Your task to perform on an android device: check google app version Image 0: 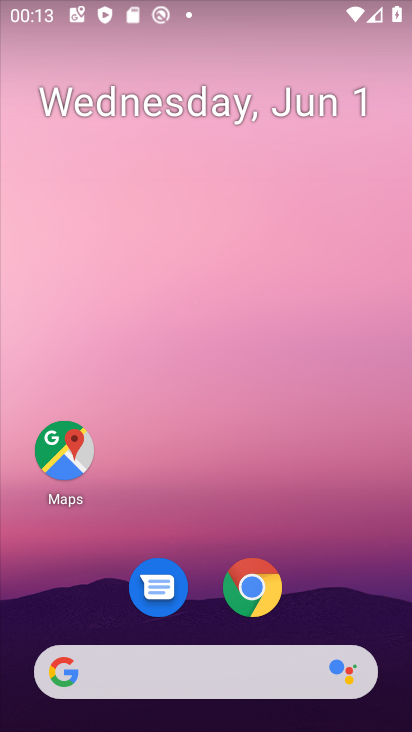
Step 0: drag from (330, 614) to (407, 0)
Your task to perform on an android device: check google app version Image 1: 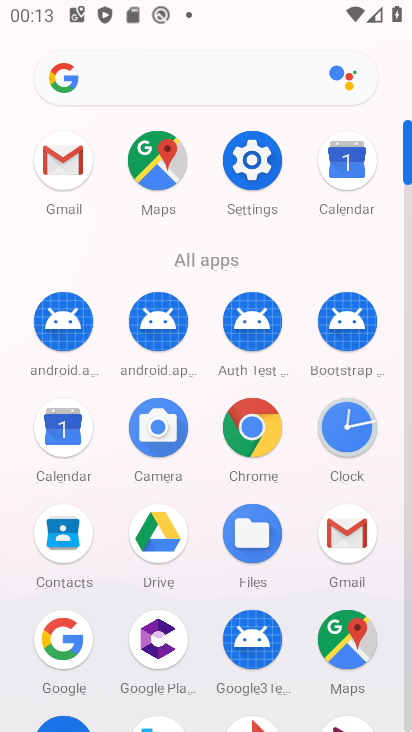
Step 1: click (68, 639)
Your task to perform on an android device: check google app version Image 2: 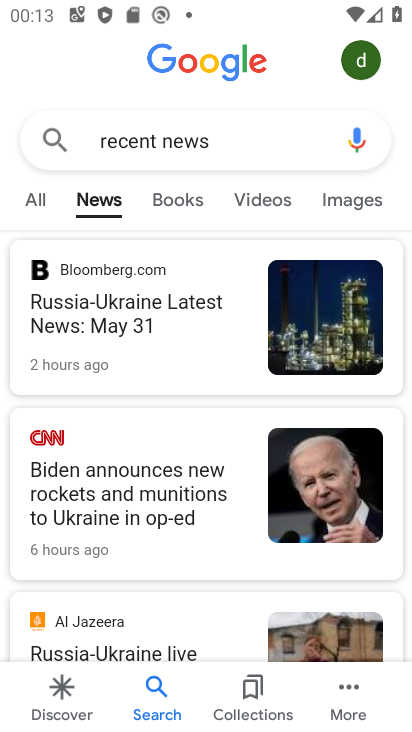
Step 2: click (354, 683)
Your task to perform on an android device: check google app version Image 3: 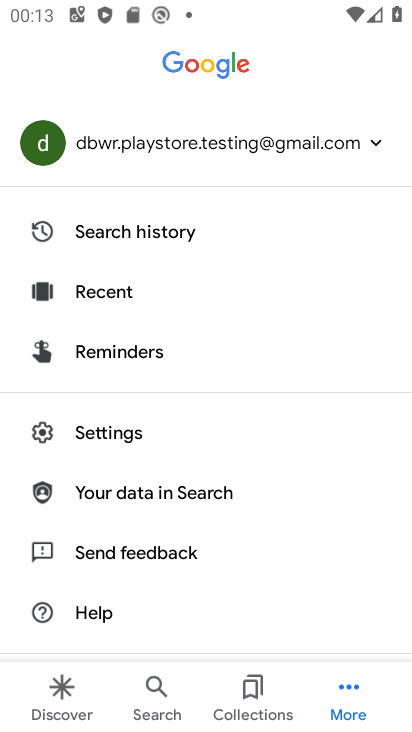
Step 3: click (124, 440)
Your task to perform on an android device: check google app version Image 4: 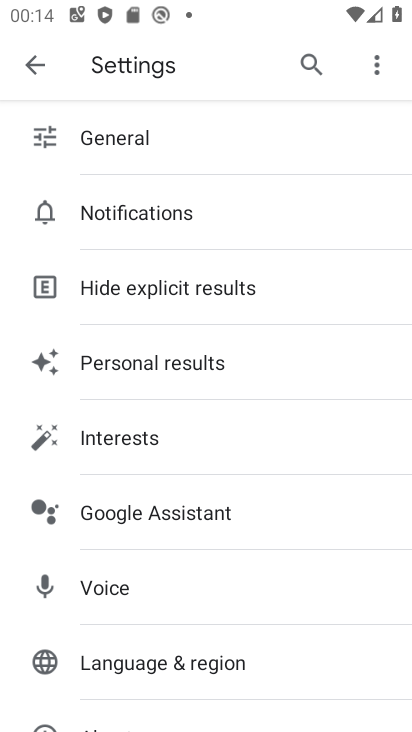
Step 4: drag from (129, 647) to (140, 78)
Your task to perform on an android device: check google app version Image 5: 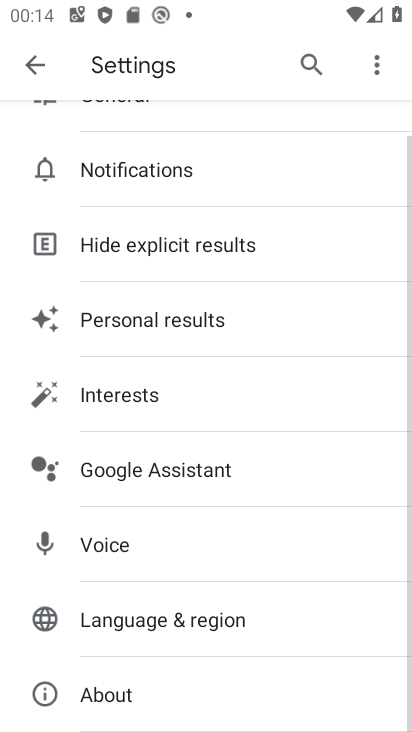
Step 5: click (94, 677)
Your task to perform on an android device: check google app version Image 6: 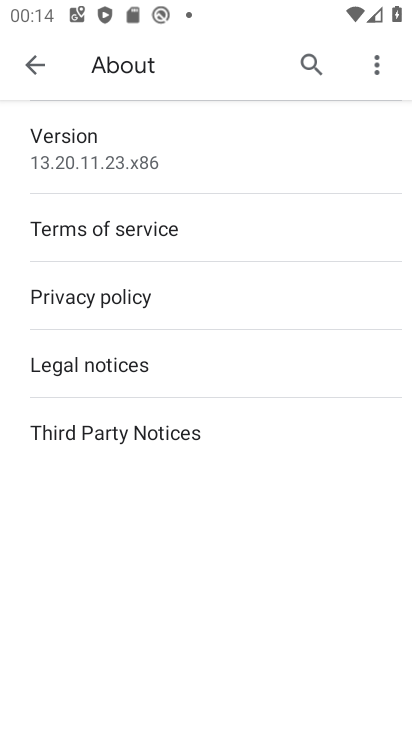
Step 6: click (179, 153)
Your task to perform on an android device: check google app version Image 7: 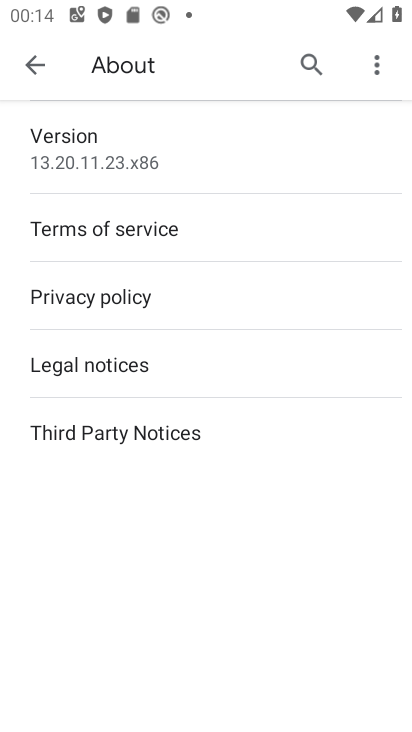
Step 7: task complete